Your task to perform on an android device: turn pop-ups off in chrome Image 0: 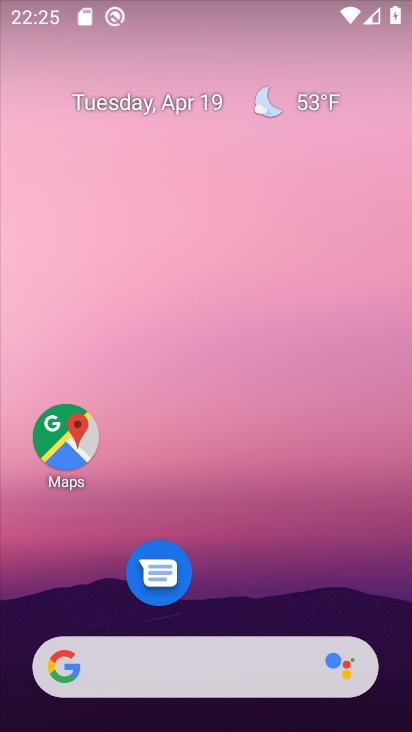
Step 0: drag from (240, 597) to (224, 116)
Your task to perform on an android device: turn pop-ups off in chrome Image 1: 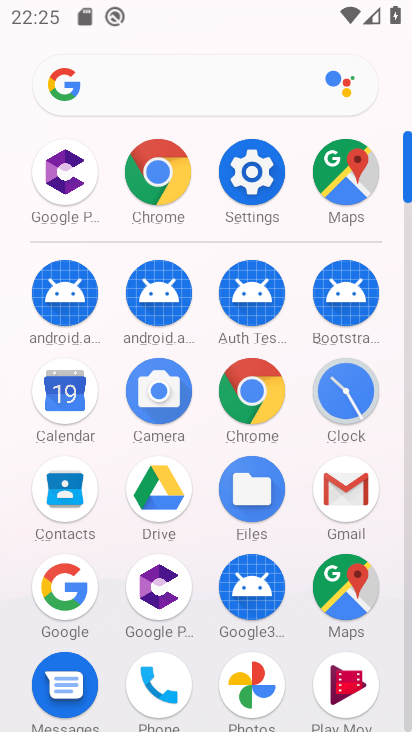
Step 1: click (245, 385)
Your task to perform on an android device: turn pop-ups off in chrome Image 2: 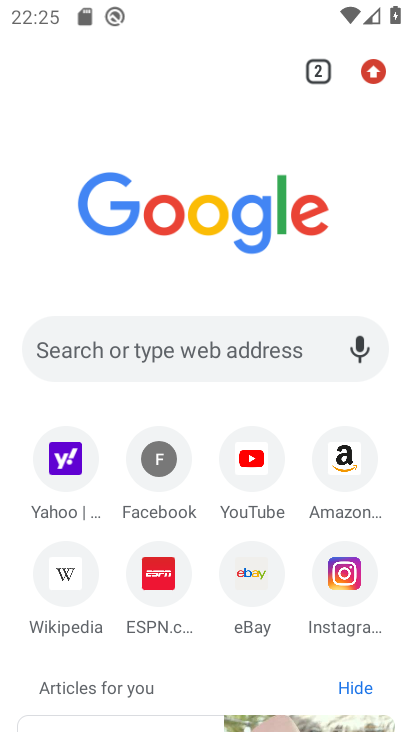
Step 2: click (371, 68)
Your task to perform on an android device: turn pop-ups off in chrome Image 3: 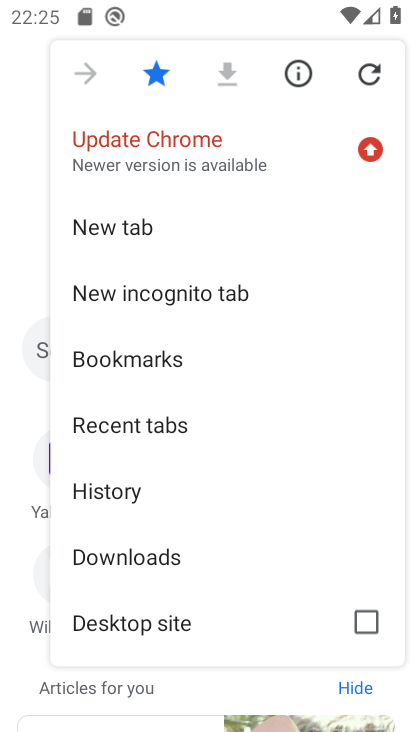
Step 3: drag from (208, 563) to (221, 140)
Your task to perform on an android device: turn pop-ups off in chrome Image 4: 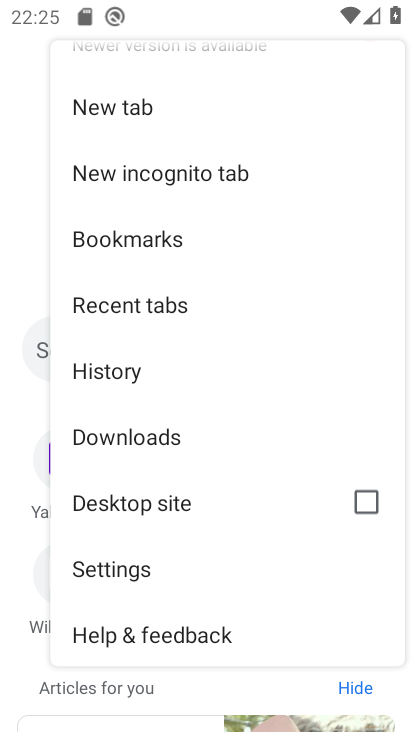
Step 4: click (158, 565)
Your task to perform on an android device: turn pop-ups off in chrome Image 5: 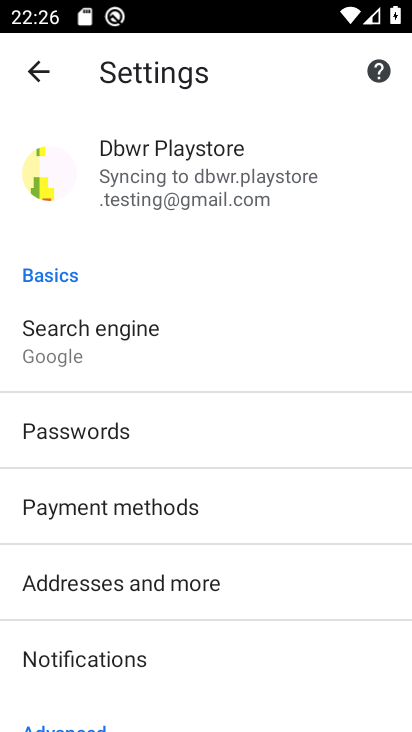
Step 5: drag from (178, 686) to (184, 222)
Your task to perform on an android device: turn pop-ups off in chrome Image 6: 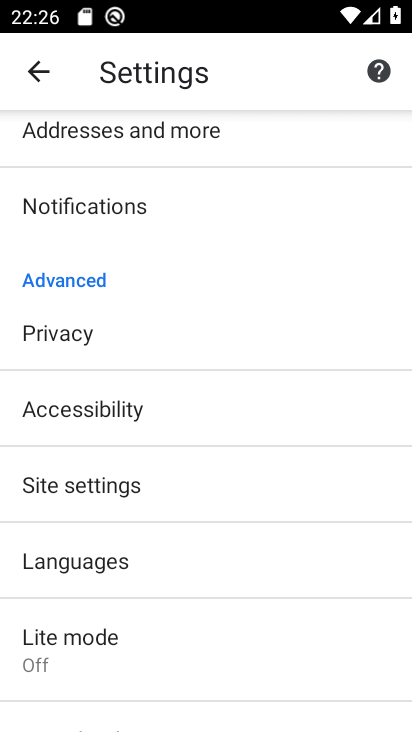
Step 6: click (158, 481)
Your task to perform on an android device: turn pop-ups off in chrome Image 7: 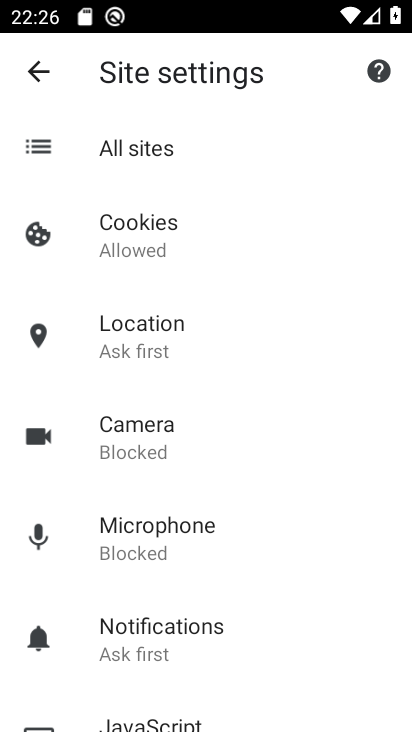
Step 7: drag from (244, 631) to (262, 71)
Your task to perform on an android device: turn pop-ups off in chrome Image 8: 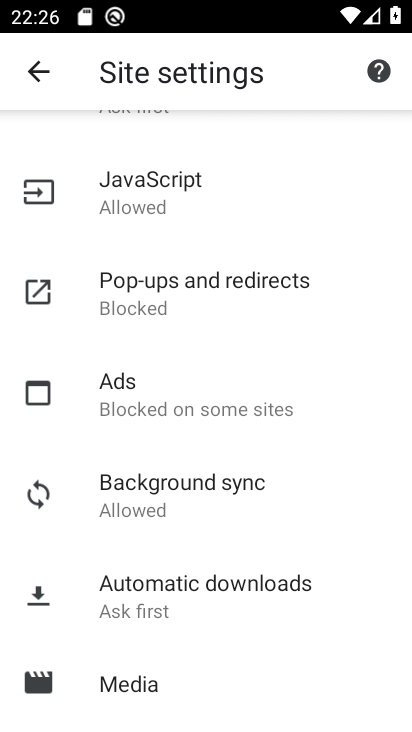
Step 8: click (195, 297)
Your task to perform on an android device: turn pop-ups off in chrome Image 9: 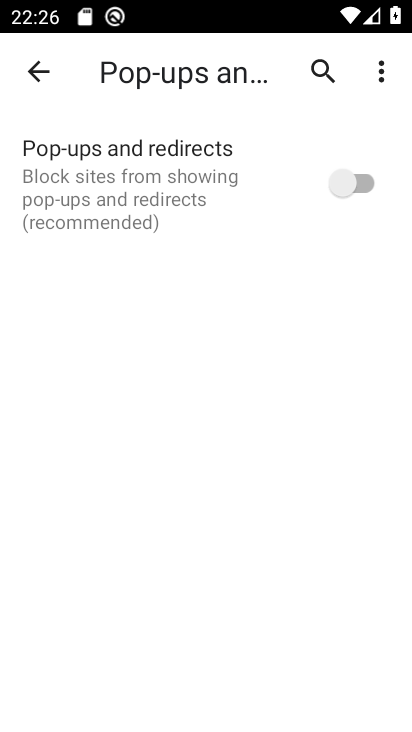
Step 9: task complete